Your task to perform on an android device: Search for Mexican restaurants on Maps Image 0: 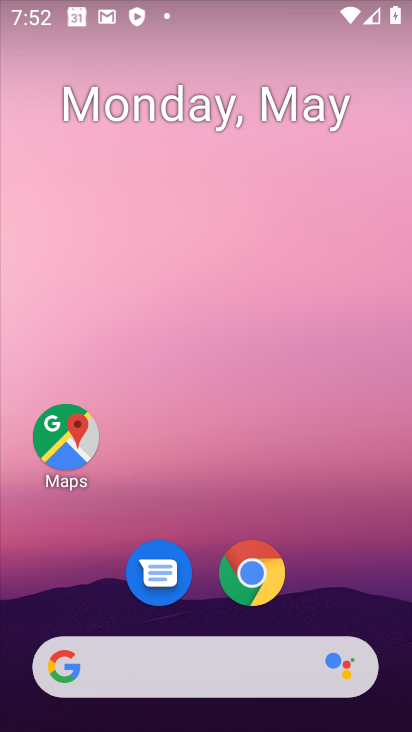
Step 0: drag from (168, 647) to (169, 235)
Your task to perform on an android device: Search for Mexican restaurants on Maps Image 1: 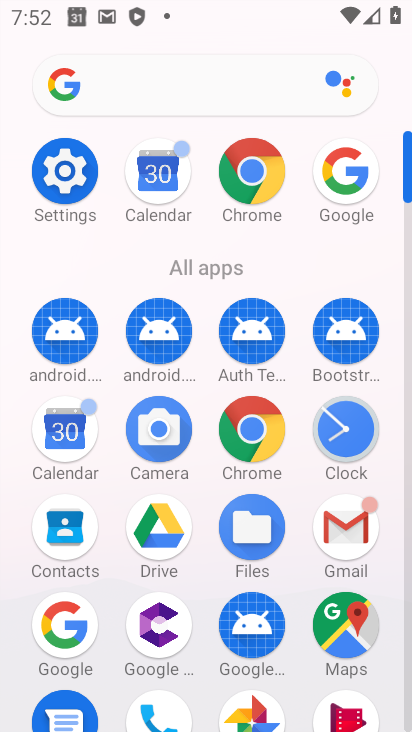
Step 1: click (353, 629)
Your task to perform on an android device: Search for Mexican restaurants on Maps Image 2: 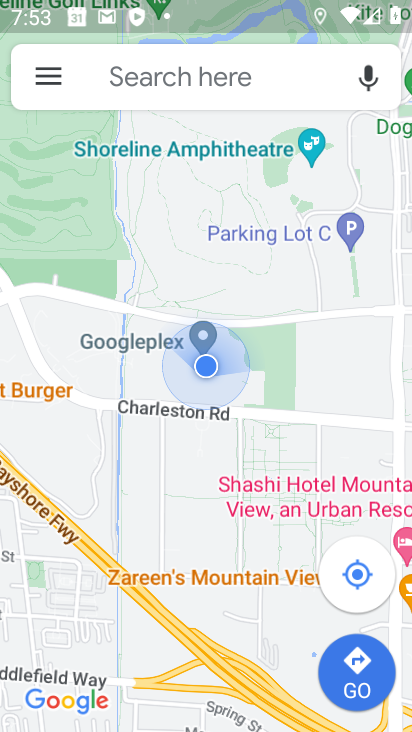
Step 2: click (189, 74)
Your task to perform on an android device: Search for Mexican restaurants on Maps Image 3: 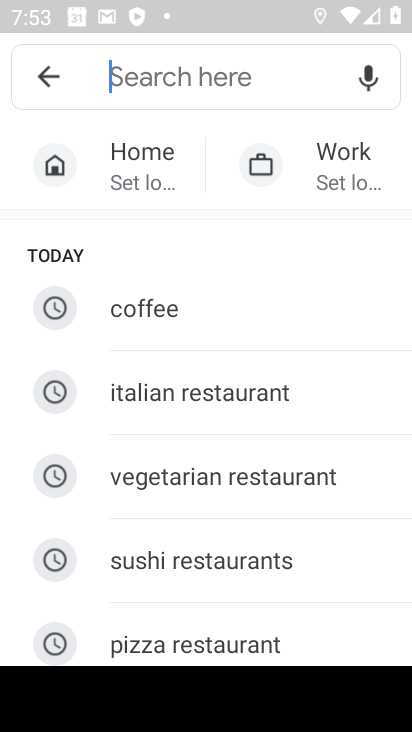
Step 3: drag from (166, 547) to (190, 333)
Your task to perform on an android device: Search for Mexican restaurants on Maps Image 4: 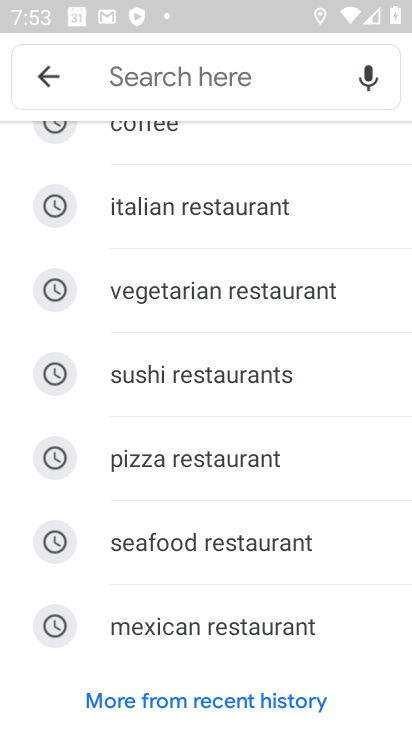
Step 4: click (205, 626)
Your task to perform on an android device: Search for Mexican restaurants on Maps Image 5: 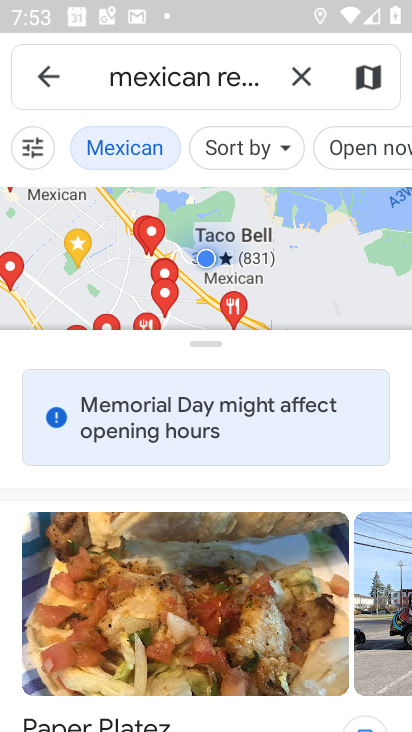
Step 5: task complete